Your task to perform on an android device: Clear all items from cart on bestbuy.com. Add "logitech g933" to the cart on bestbuy.com, then select checkout. Image 0: 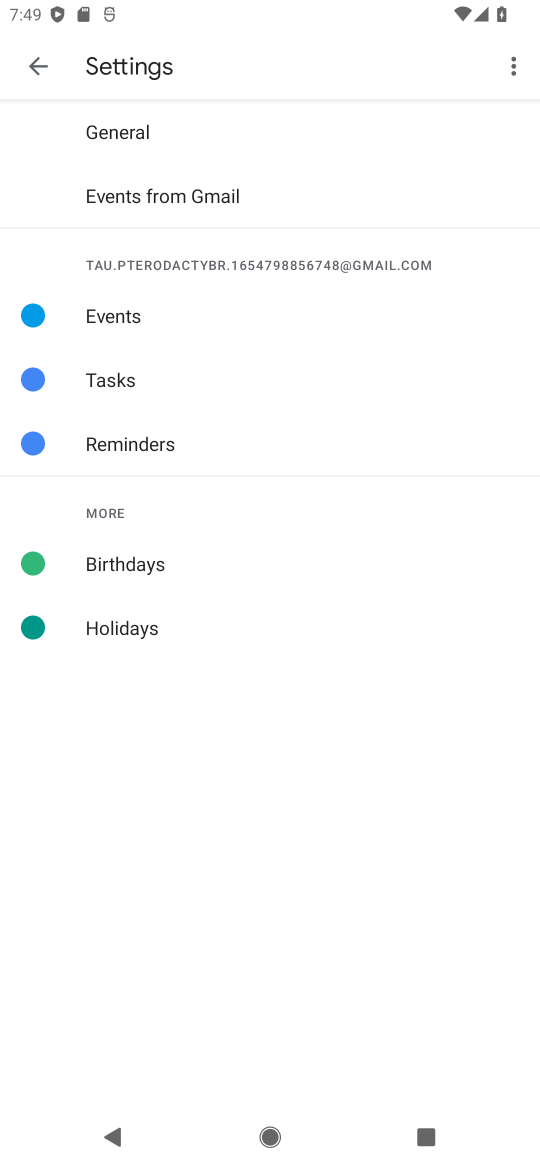
Step 0: press home button
Your task to perform on an android device: Clear all items from cart on bestbuy.com. Add "logitech g933" to the cart on bestbuy.com, then select checkout. Image 1: 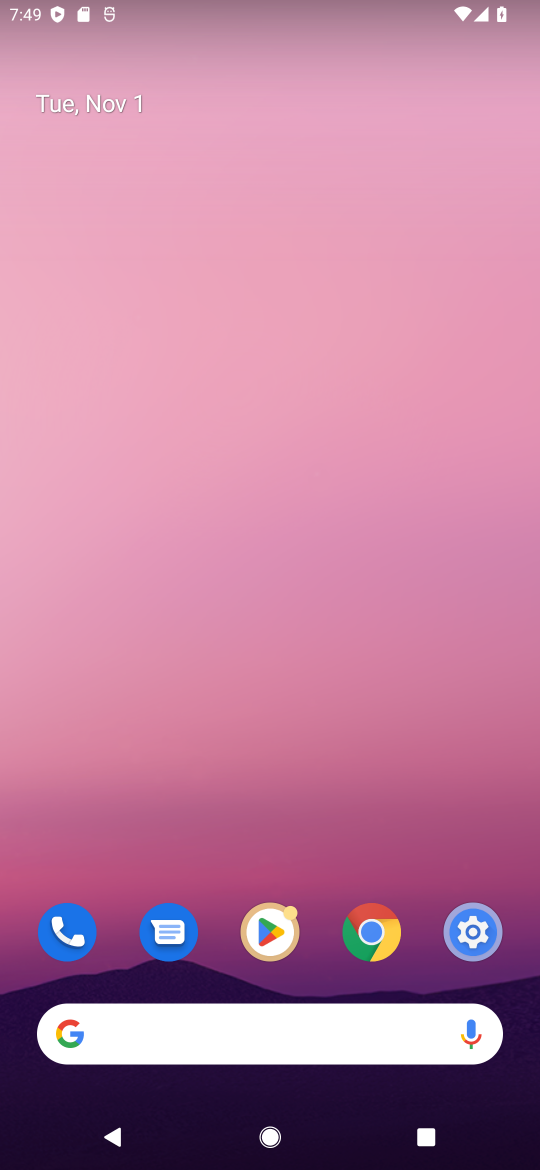
Step 1: click (367, 940)
Your task to perform on an android device: Clear all items from cart on bestbuy.com. Add "logitech g933" to the cart on bestbuy.com, then select checkout. Image 2: 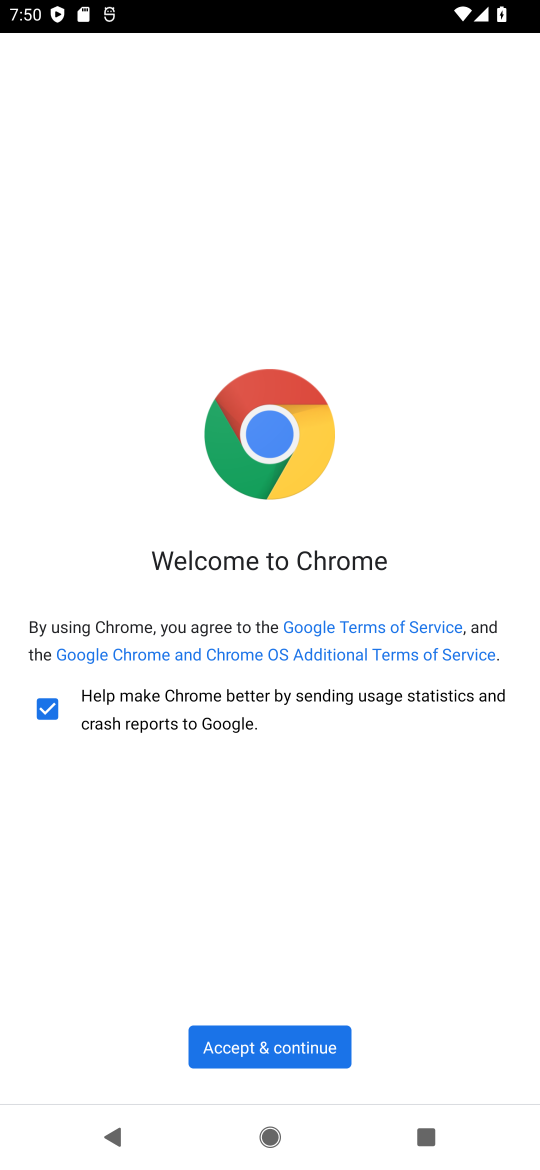
Step 2: click (226, 1043)
Your task to perform on an android device: Clear all items from cart on bestbuy.com. Add "logitech g933" to the cart on bestbuy.com, then select checkout. Image 3: 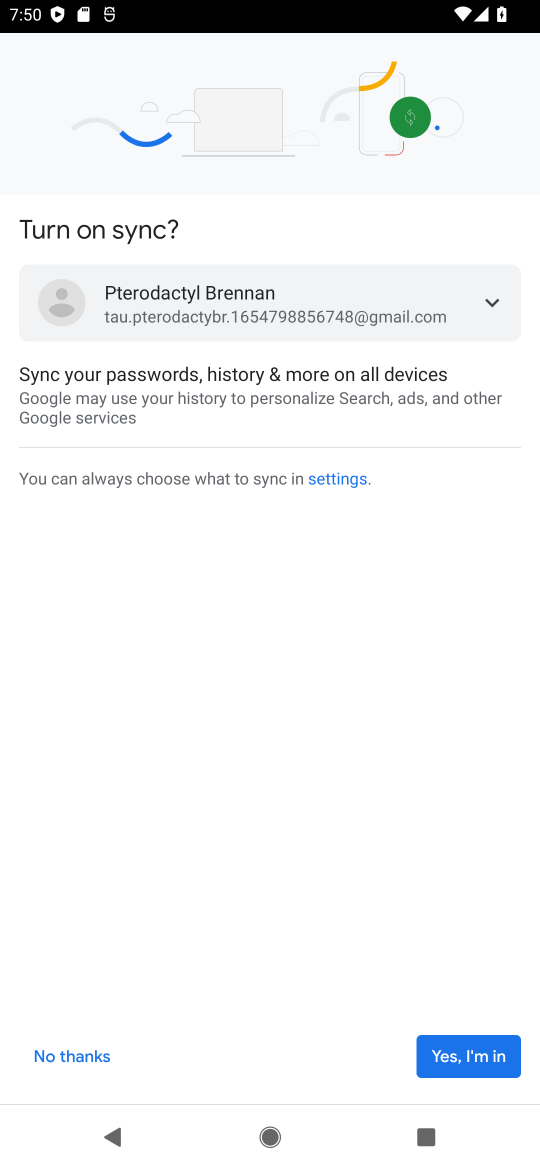
Step 3: click (260, 1050)
Your task to perform on an android device: Clear all items from cart on bestbuy.com. Add "logitech g933" to the cart on bestbuy.com, then select checkout. Image 4: 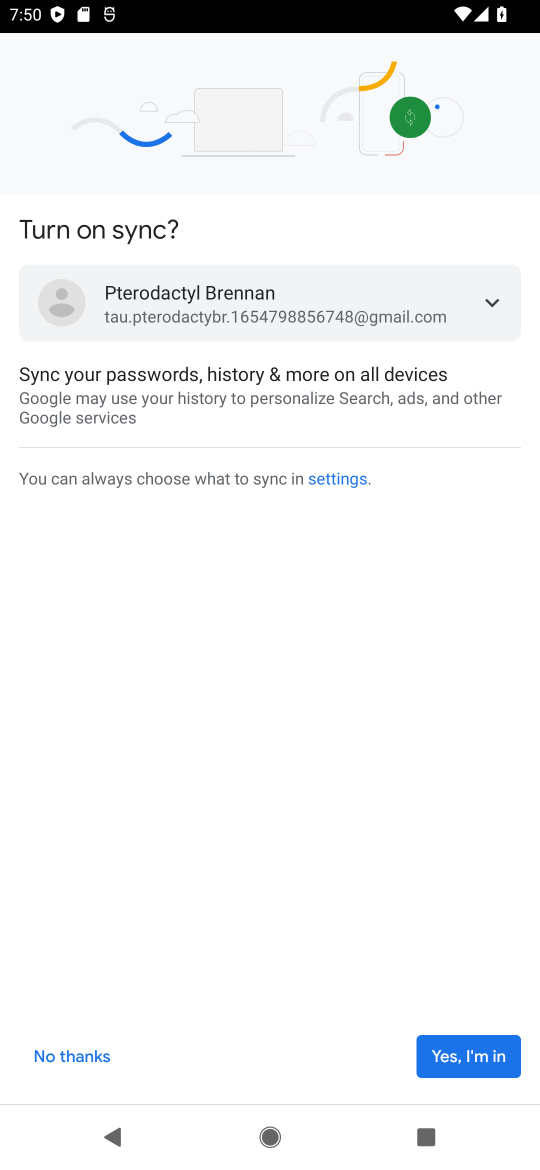
Step 4: click (455, 1063)
Your task to perform on an android device: Clear all items from cart on bestbuy.com. Add "logitech g933" to the cart on bestbuy.com, then select checkout. Image 5: 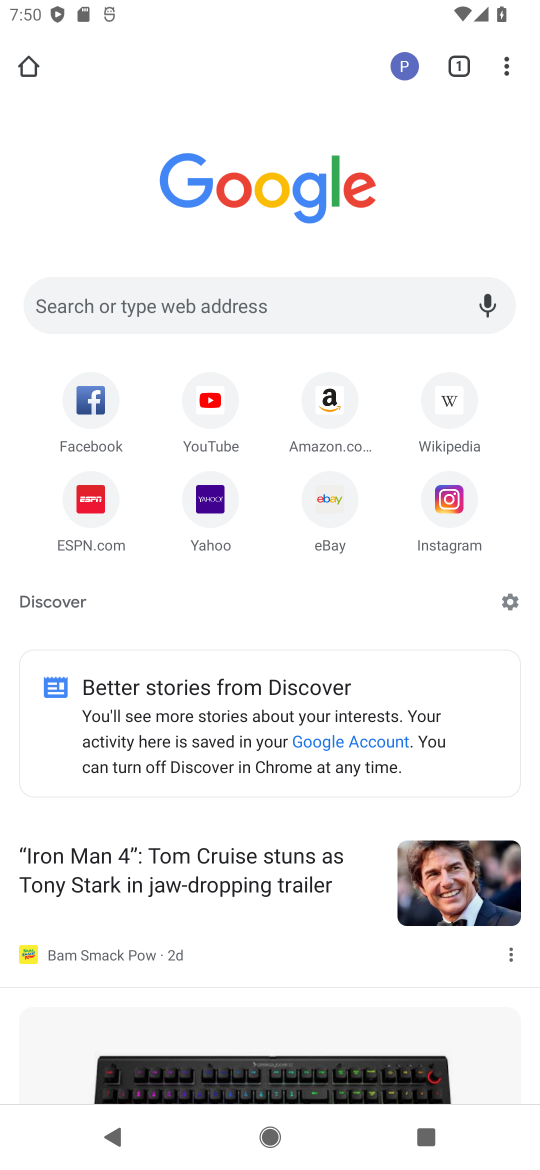
Step 5: click (120, 305)
Your task to perform on an android device: Clear all items from cart on bestbuy.com. Add "logitech g933" to the cart on bestbuy.com, then select checkout. Image 6: 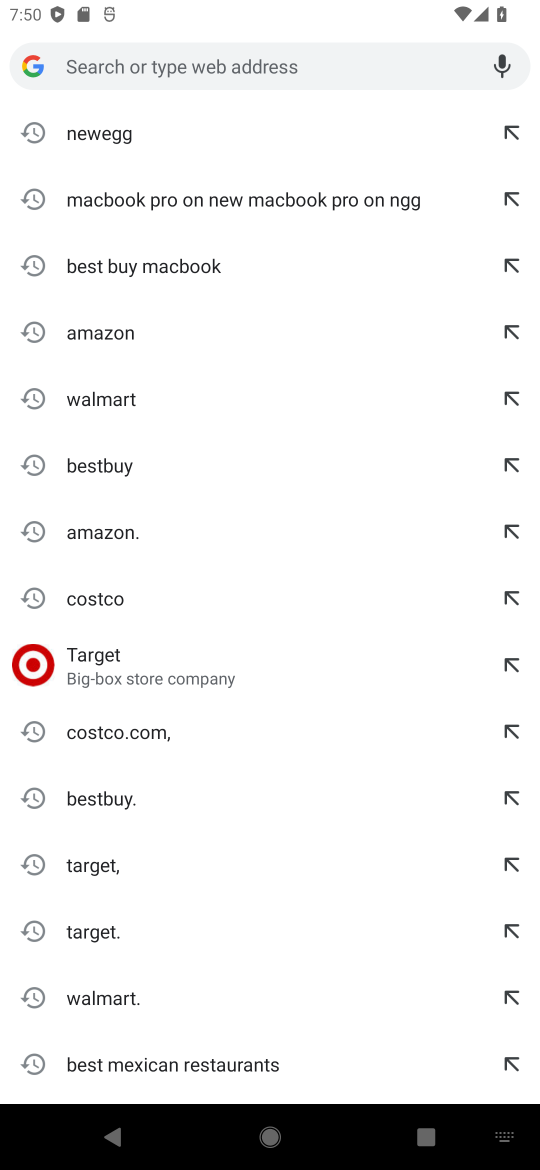
Step 6: type "bestbuy.com"
Your task to perform on an android device: Clear all items from cart on bestbuy.com. Add "logitech g933" to the cart on bestbuy.com, then select checkout. Image 7: 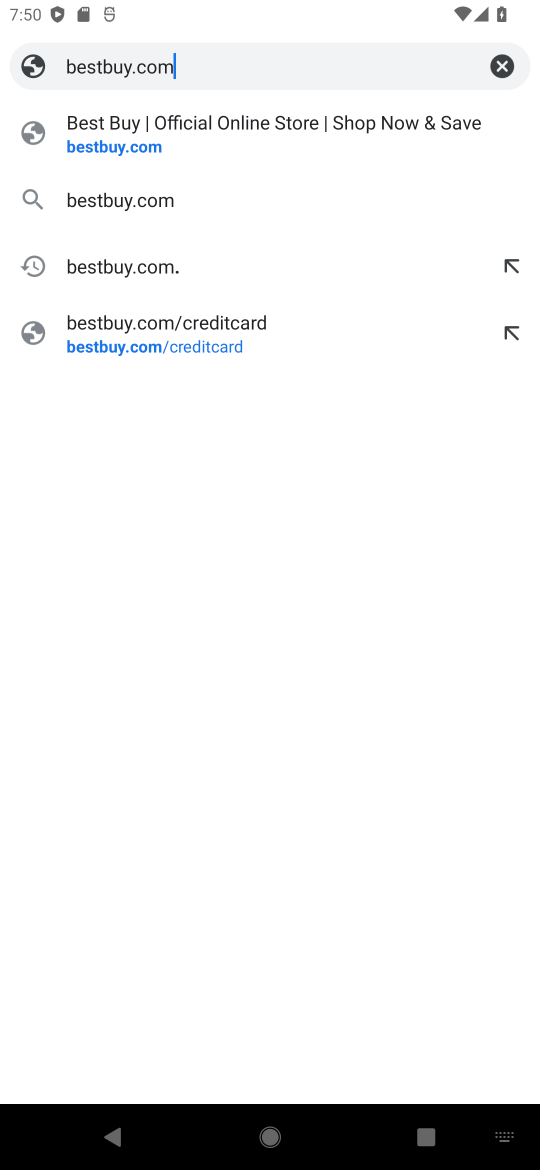
Step 7: click (107, 153)
Your task to perform on an android device: Clear all items from cart on bestbuy.com. Add "logitech g933" to the cart on bestbuy.com, then select checkout. Image 8: 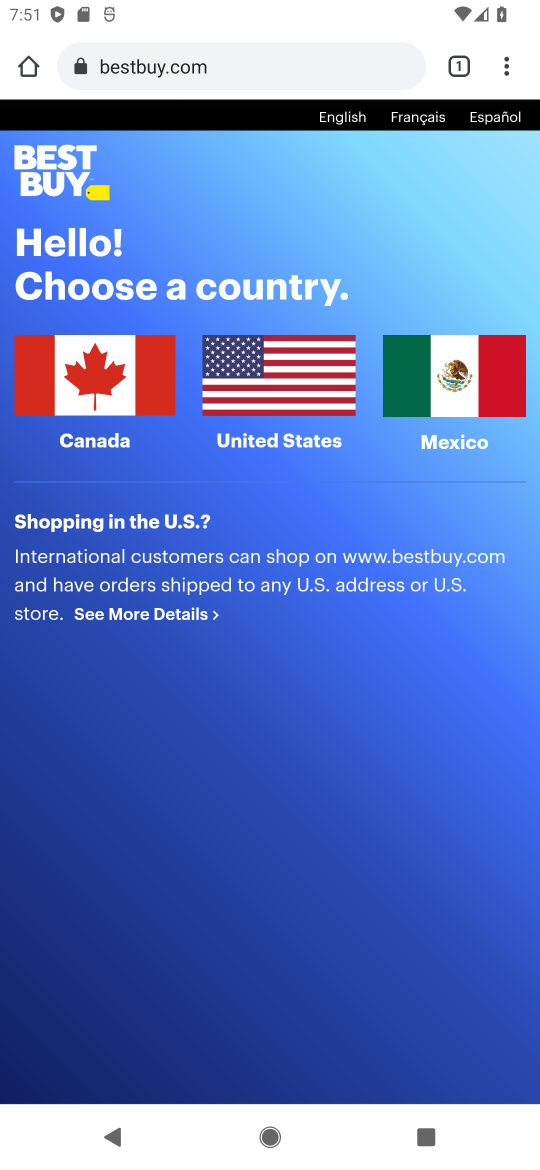
Step 8: click (250, 399)
Your task to perform on an android device: Clear all items from cart on bestbuy.com. Add "logitech g933" to the cart on bestbuy.com, then select checkout. Image 9: 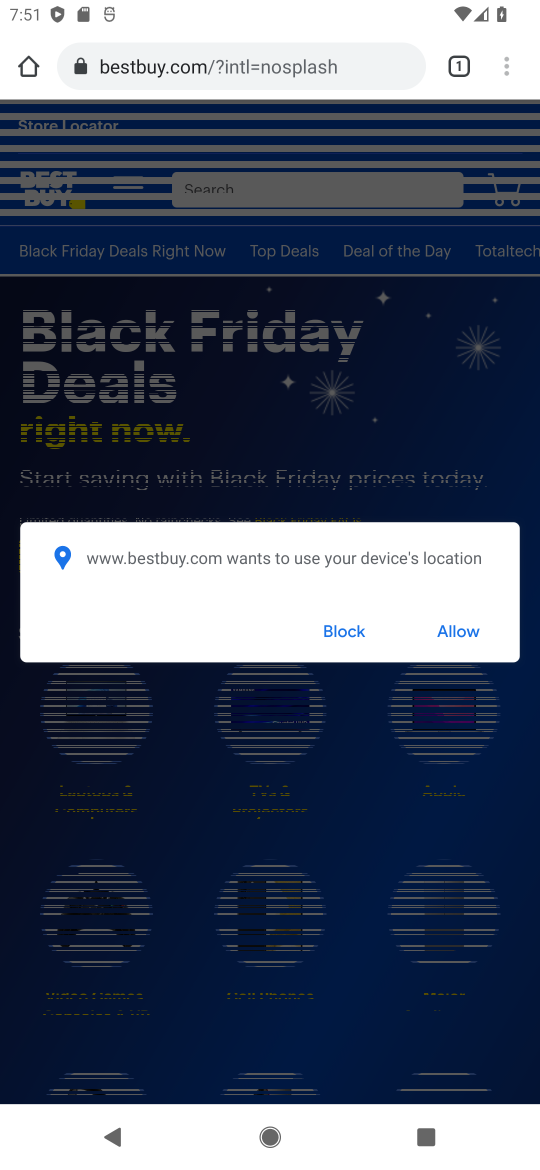
Step 9: click (329, 630)
Your task to perform on an android device: Clear all items from cart on bestbuy.com. Add "logitech g933" to the cart on bestbuy.com, then select checkout. Image 10: 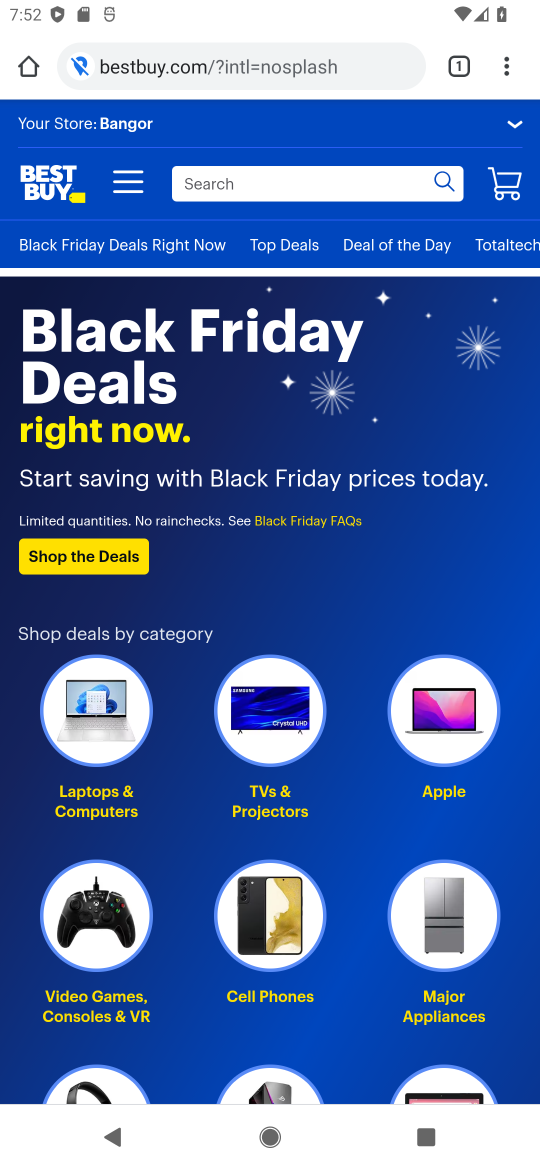
Step 10: click (510, 183)
Your task to perform on an android device: Clear all items from cart on bestbuy.com. Add "logitech g933" to the cart on bestbuy.com, then select checkout. Image 11: 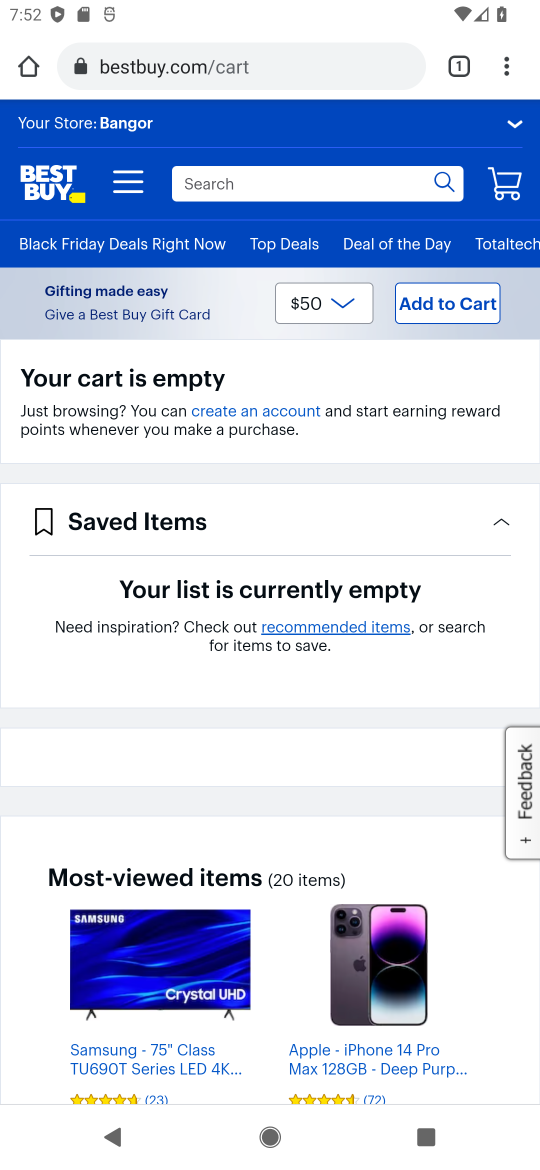
Step 11: click (283, 183)
Your task to perform on an android device: Clear all items from cart on bestbuy.com. Add "logitech g933" to the cart on bestbuy.com, then select checkout. Image 12: 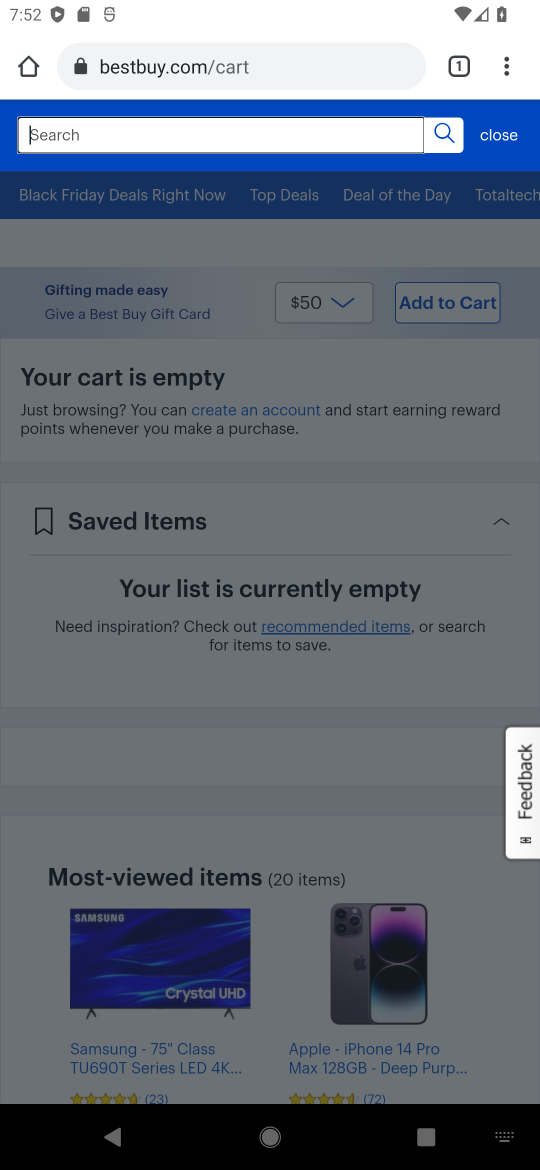
Step 12: click (146, 133)
Your task to perform on an android device: Clear all items from cart on bestbuy.com. Add "logitech g933" to the cart on bestbuy.com, then select checkout. Image 13: 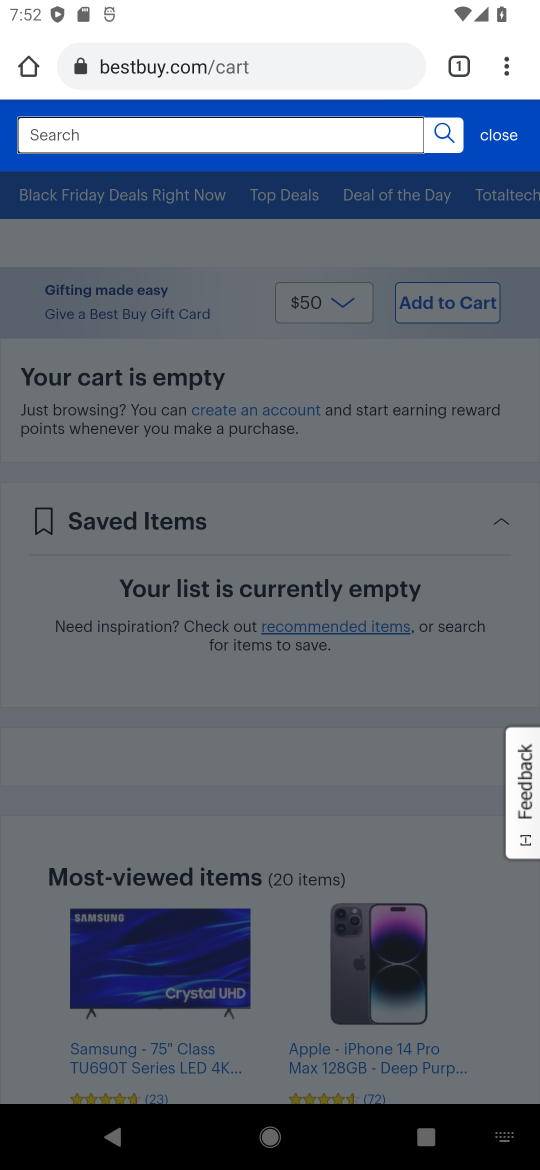
Step 13: type "logitech g933"
Your task to perform on an android device: Clear all items from cart on bestbuy.com. Add "logitech g933" to the cart on bestbuy.com, then select checkout. Image 14: 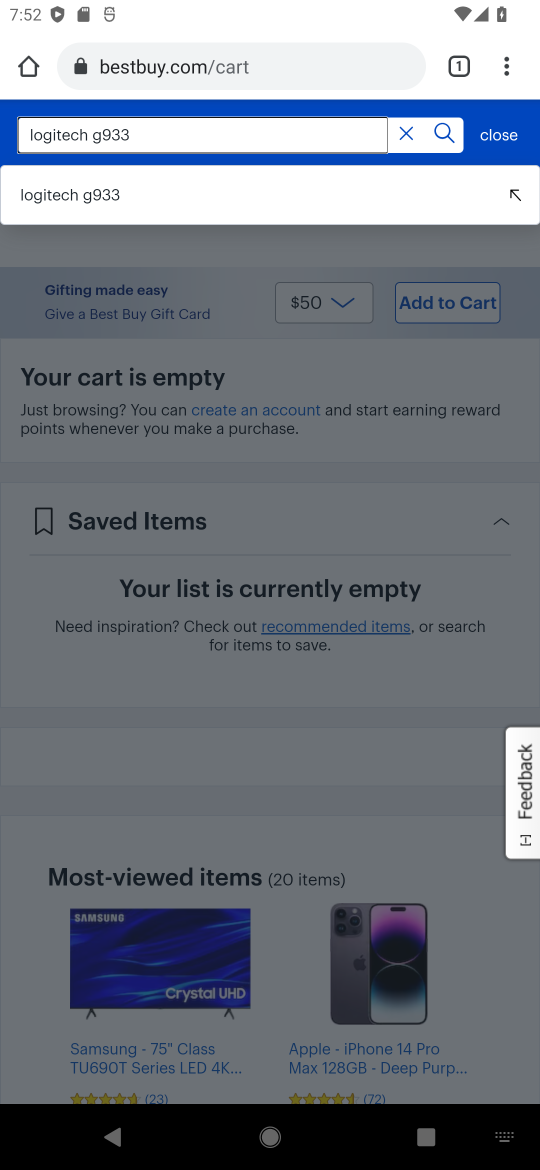
Step 14: click (62, 202)
Your task to perform on an android device: Clear all items from cart on bestbuy.com. Add "logitech g933" to the cart on bestbuy.com, then select checkout. Image 15: 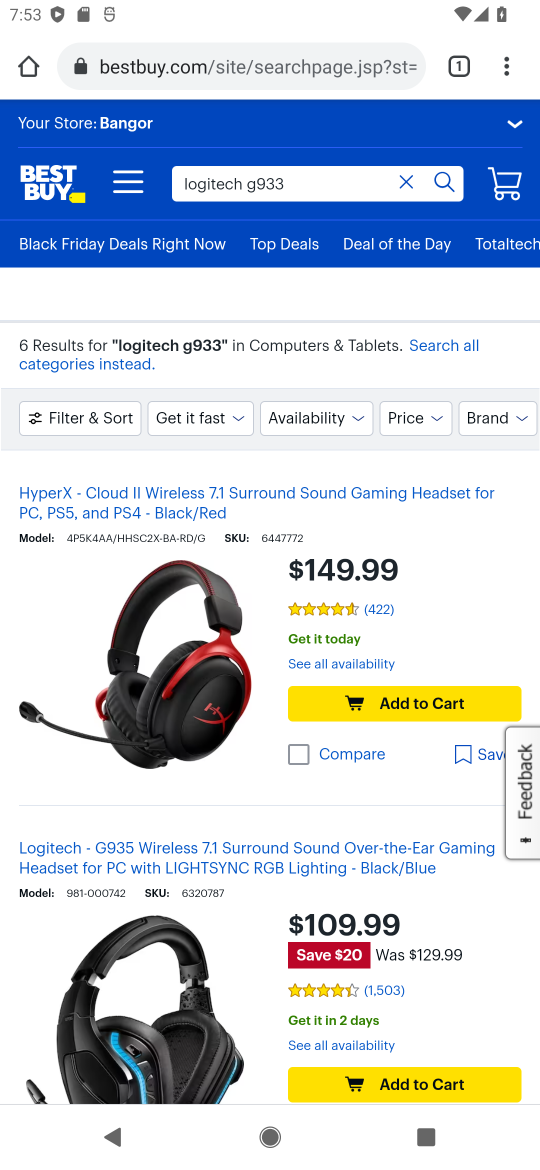
Step 15: task complete